Your task to perform on an android device: clear history in the chrome app Image 0: 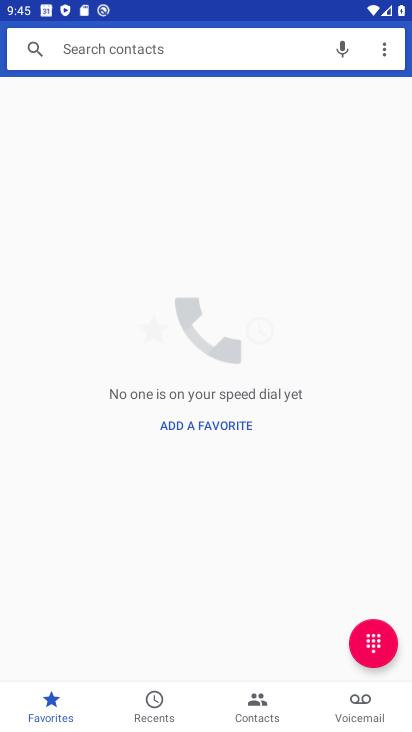
Step 0: press home button
Your task to perform on an android device: clear history in the chrome app Image 1: 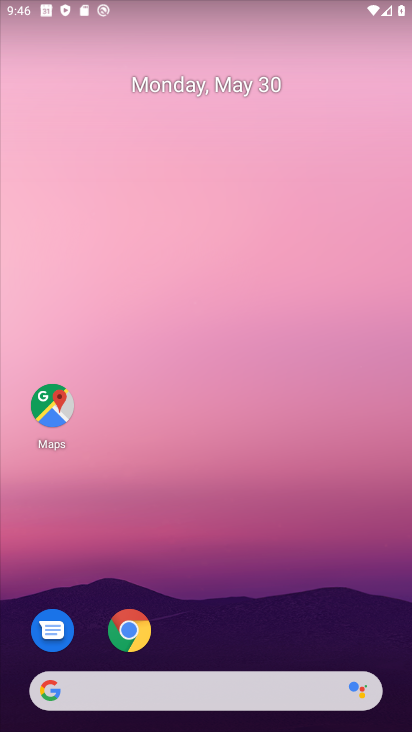
Step 1: click (133, 636)
Your task to perform on an android device: clear history in the chrome app Image 2: 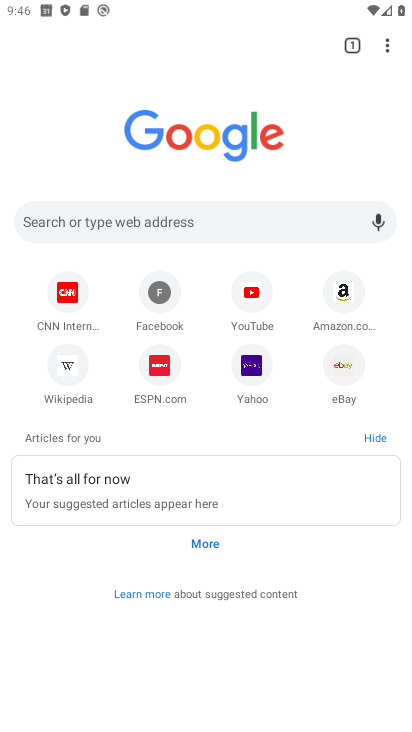
Step 2: click (389, 40)
Your task to perform on an android device: clear history in the chrome app Image 3: 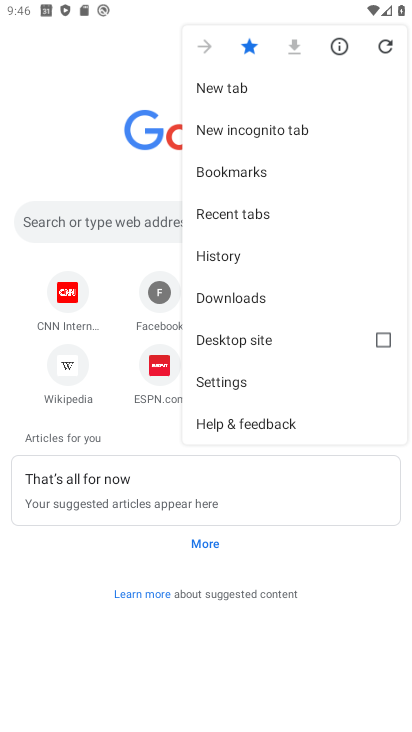
Step 3: click (249, 247)
Your task to perform on an android device: clear history in the chrome app Image 4: 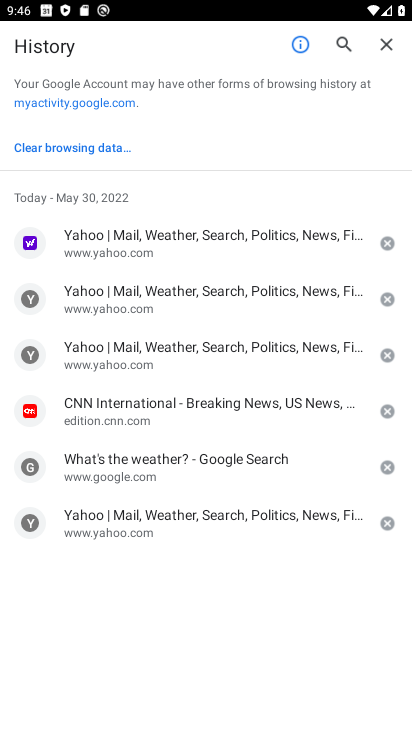
Step 4: click (85, 141)
Your task to perform on an android device: clear history in the chrome app Image 5: 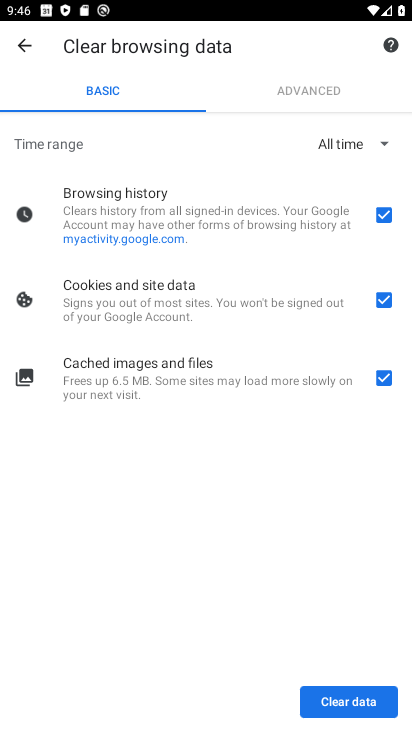
Step 5: click (381, 279)
Your task to perform on an android device: clear history in the chrome app Image 6: 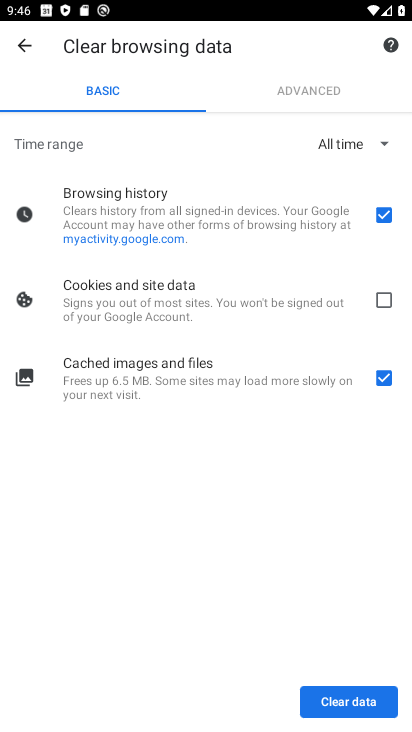
Step 6: click (392, 393)
Your task to perform on an android device: clear history in the chrome app Image 7: 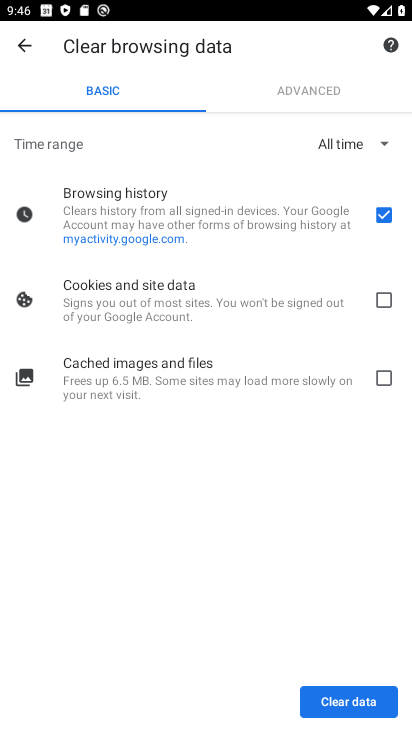
Step 7: click (346, 690)
Your task to perform on an android device: clear history in the chrome app Image 8: 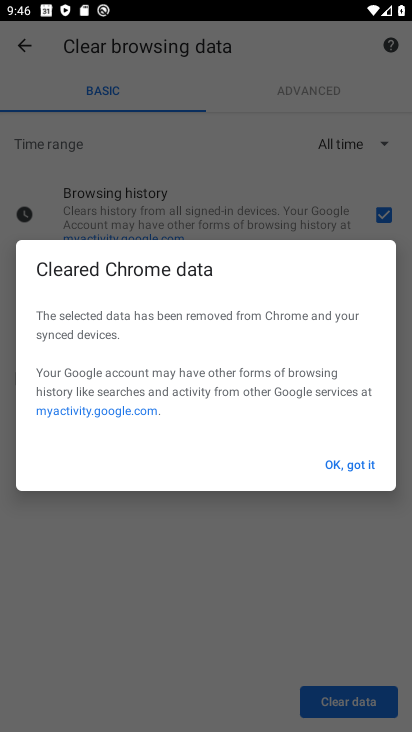
Step 8: click (332, 464)
Your task to perform on an android device: clear history in the chrome app Image 9: 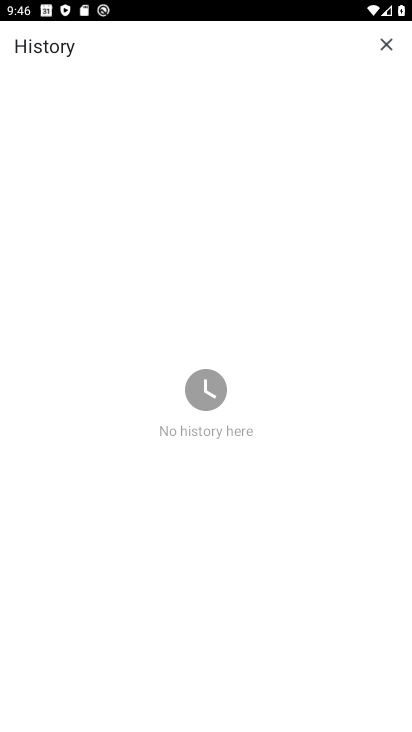
Step 9: task complete